Your task to perform on an android device: Search for sushi restaurants on Maps Image 0: 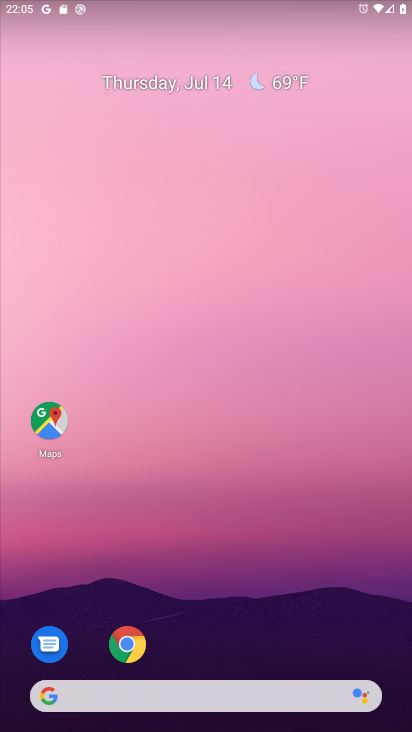
Step 0: click (39, 420)
Your task to perform on an android device: Search for sushi restaurants on Maps Image 1: 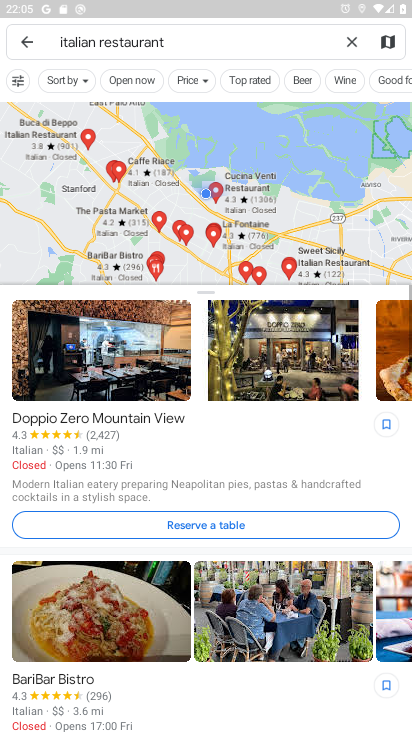
Step 1: click (350, 46)
Your task to perform on an android device: Search for sushi restaurants on Maps Image 2: 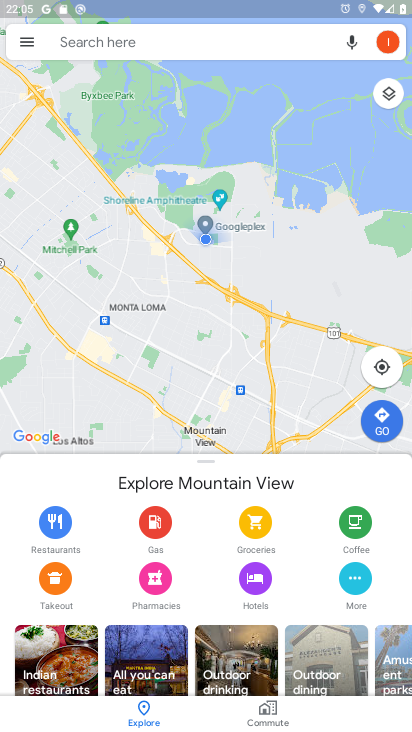
Step 2: click (100, 39)
Your task to perform on an android device: Search for sushi restaurants on Maps Image 3: 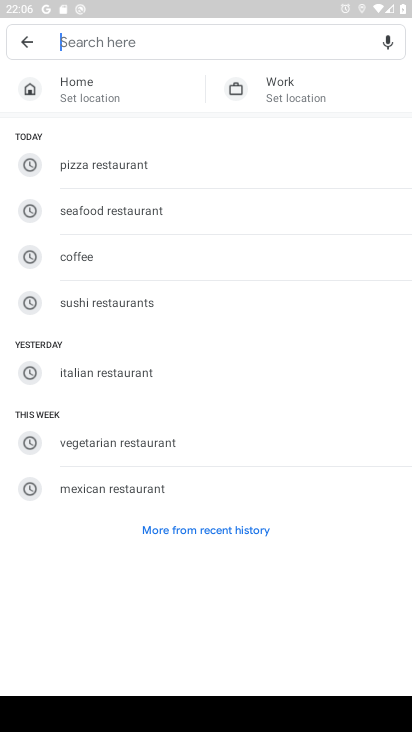
Step 3: click (114, 298)
Your task to perform on an android device: Search for sushi restaurants on Maps Image 4: 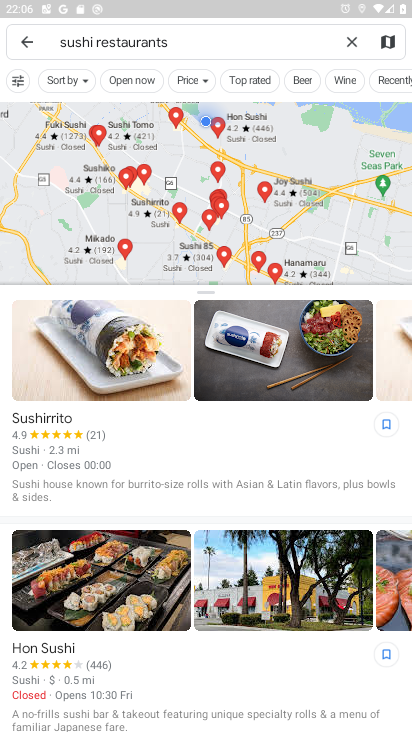
Step 4: task complete